Your task to perform on an android device: What's on my calendar today? Image 0: 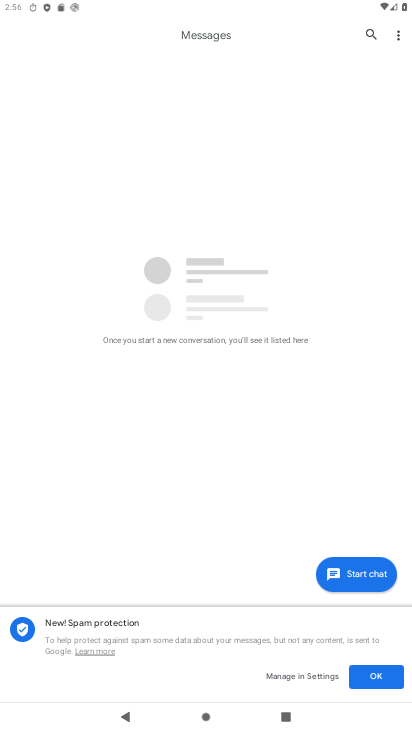
Step 0: press home button
Your task to perform on an android device: What's on my calendar today? Image 1: 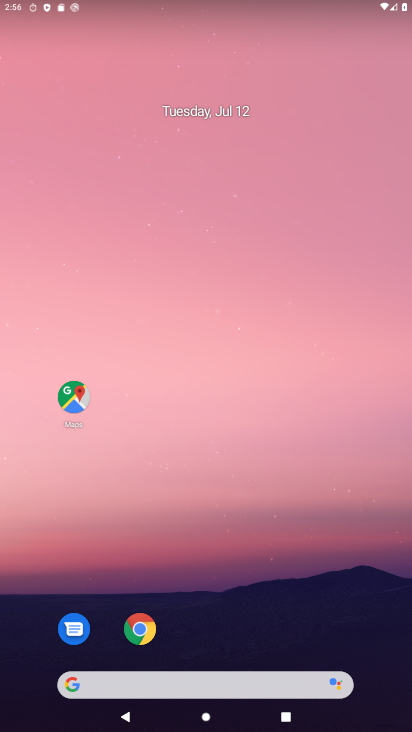
Step 1: drag from (252, 618) to (383, 68)
Your task to perform on an android device: What's on my calendar today? Image 2: 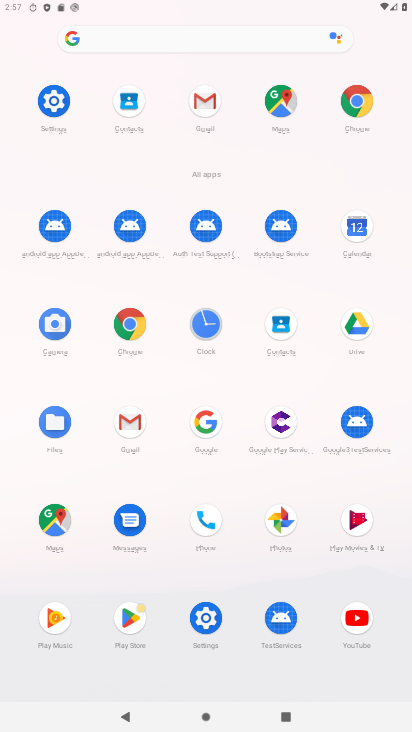
Step 2: click (355, 228)
Your task to perform on an android device: What's on my calendar today? Image 3: 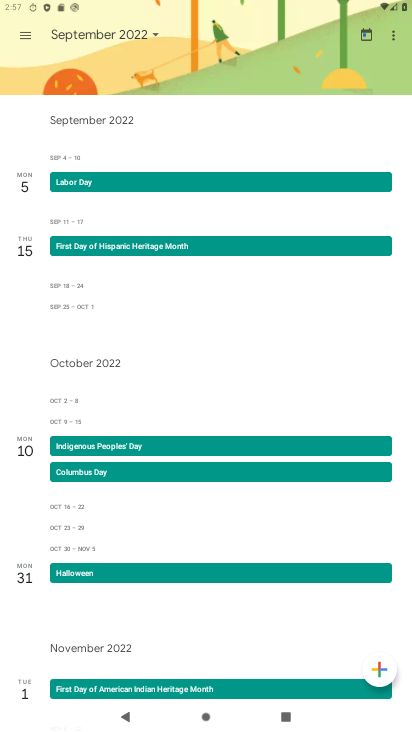
Step 3: click (88, 34)
Your task to perform on an android device: What's on my calendar today? Image 4: 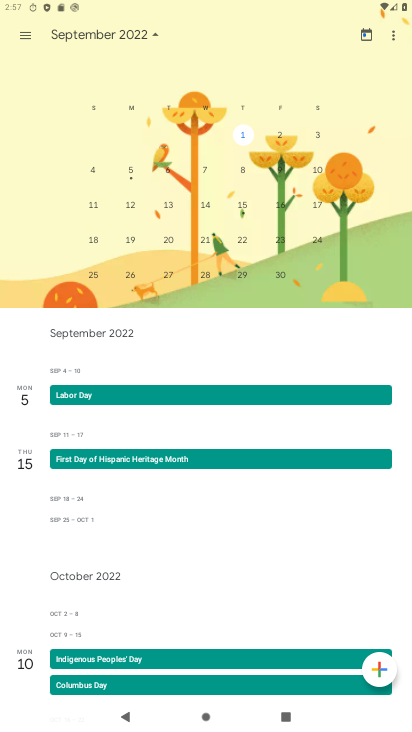
Step 4: drag from (13, 183) to (334, 182)
Your task to perform on an android device: What's on my calendar today? Image 5: 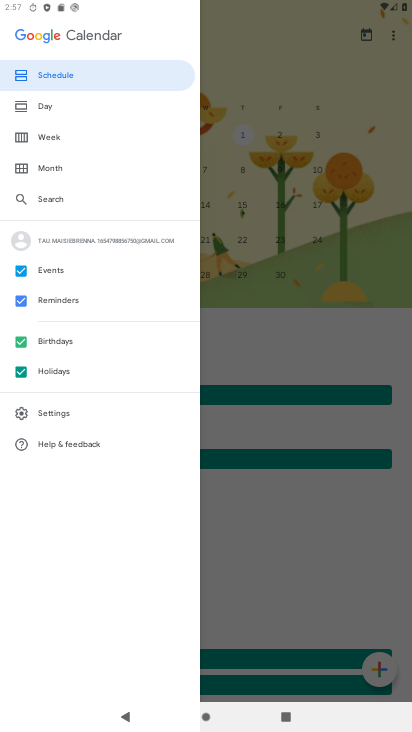
Step 5: click (316, 64)
Your task to perform on an android device: What's on my calendar today? Image 6: 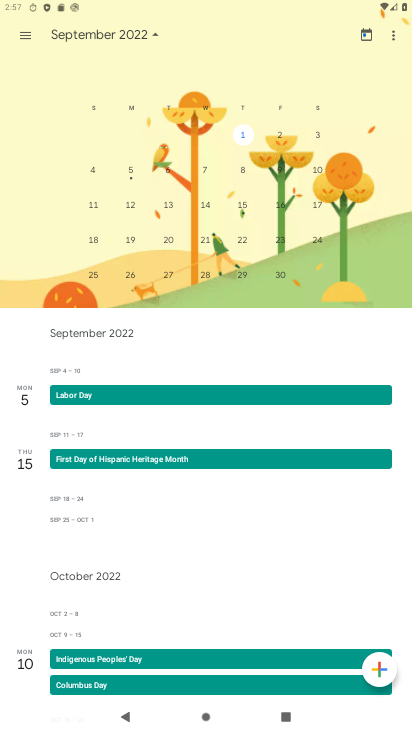
Step 6: drag from (101, 154) to (384, 146)
Your task to perform on an android device: What's on my calendar today? Image 7: 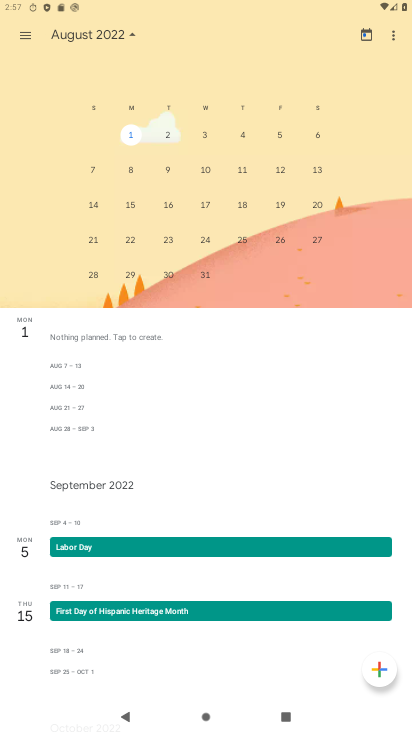
Step 7: drag from (88, 136) to (409, 132)
Your task to perform on an android device: What's on my calendar today? Image 8: 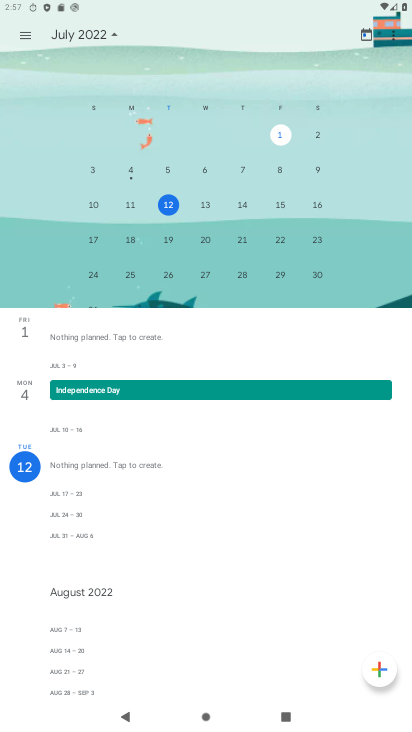
Step 8: click (172, 197)
Your task to perform on an android device: What's on my calendar today? Image 9: 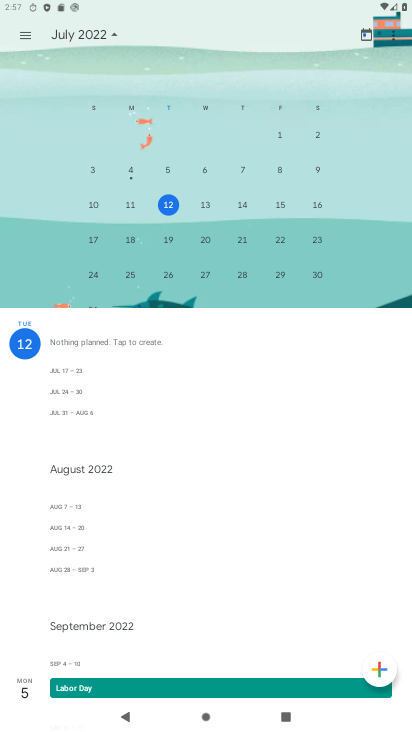
Step 9: task complete